Your task to perform on an android device: turn on bluetooth scan Image 0: 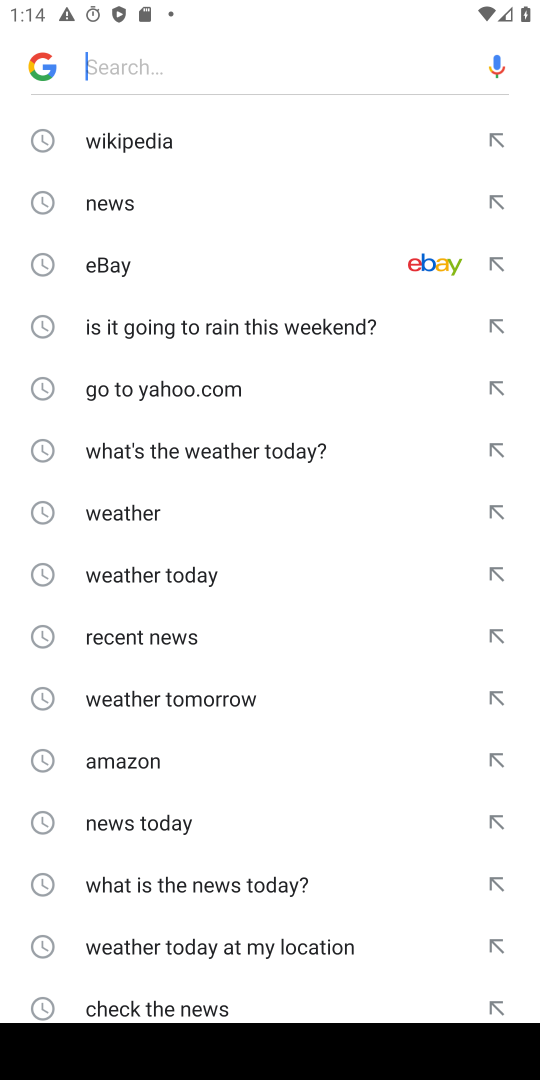
Step 0: press home button
Your task to perform on an android device: turn on bluetooth scan Image 1: 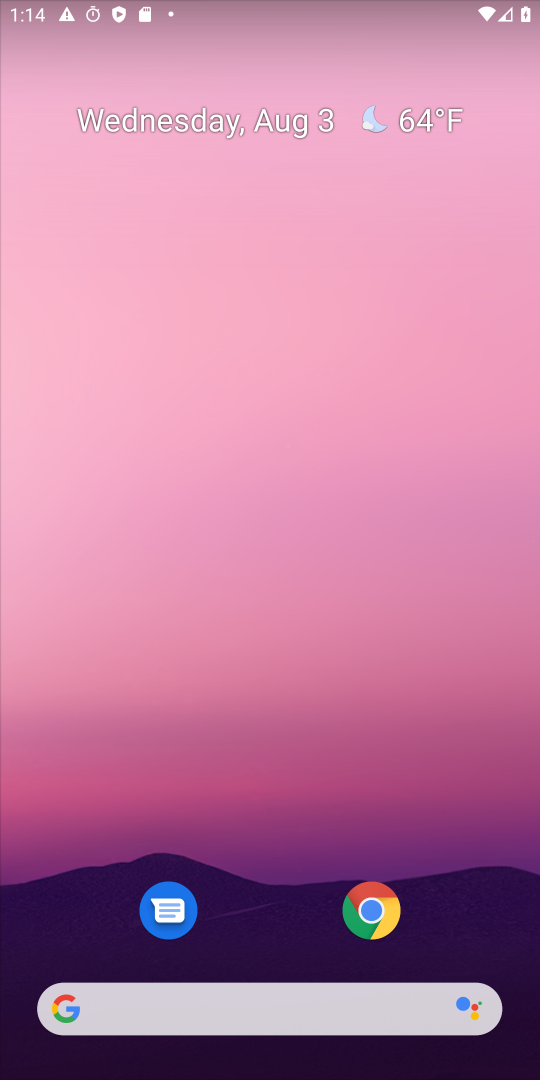
Step 1: drag from (362, 886) to (471, 0)
Your task to perform on an android device: turn on bluetooth scan Image 2: 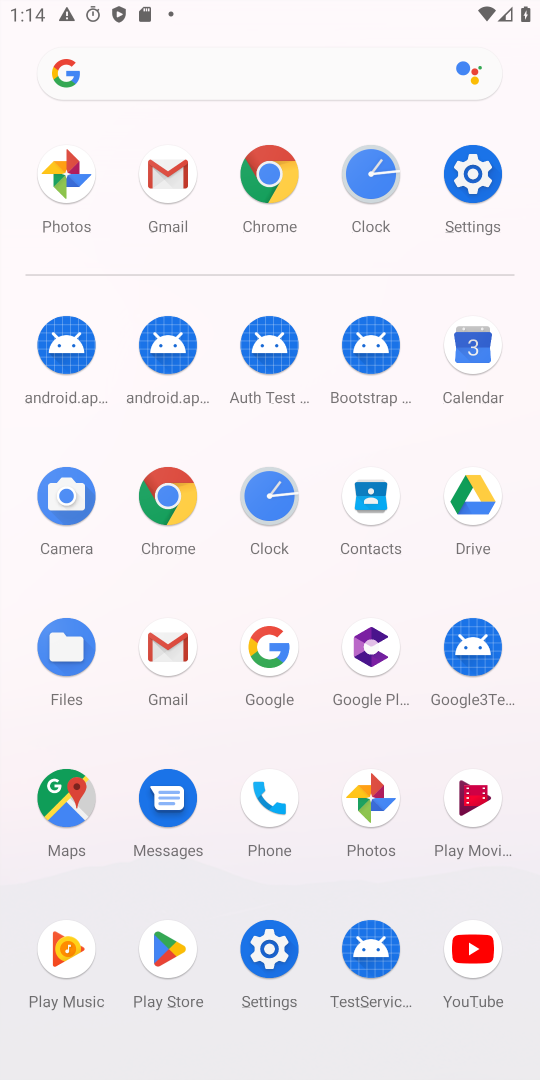
Step 2: click (464, 171)
Your task to perform on an android device: turn on bluetooth scan Image 3: 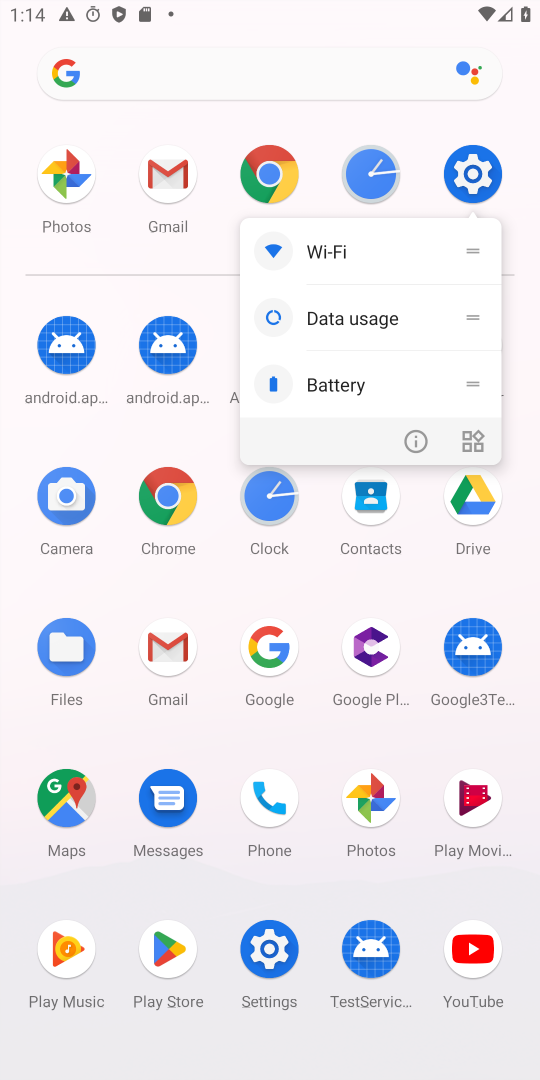
Step 3: click (464, 171)
Your task to perform on an android device: turn on bluetooth scan Image 4: 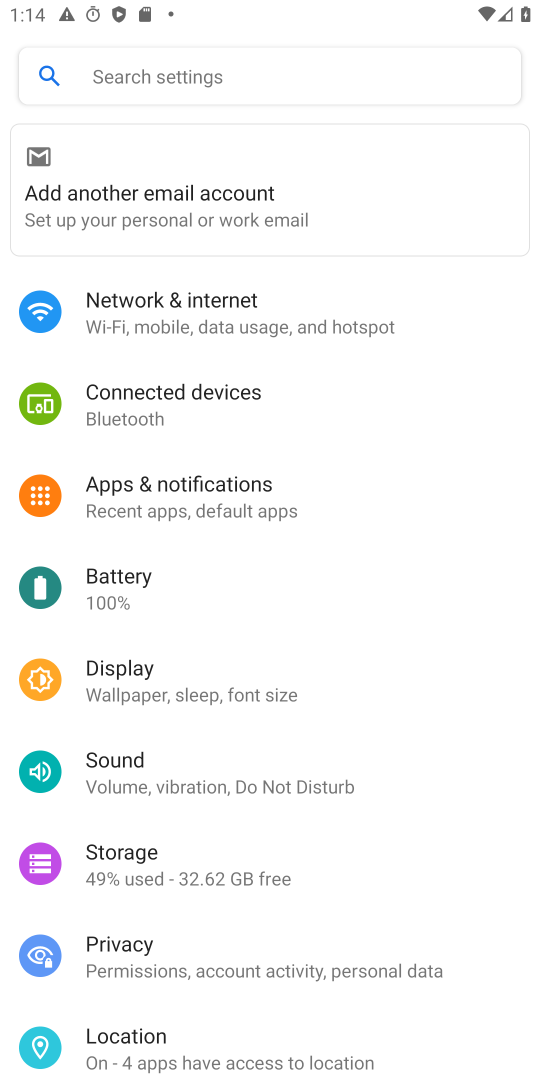
Step 4: click (167, 1048)
Your task to perform on an android device: turn on bluetooth scan Image 5: 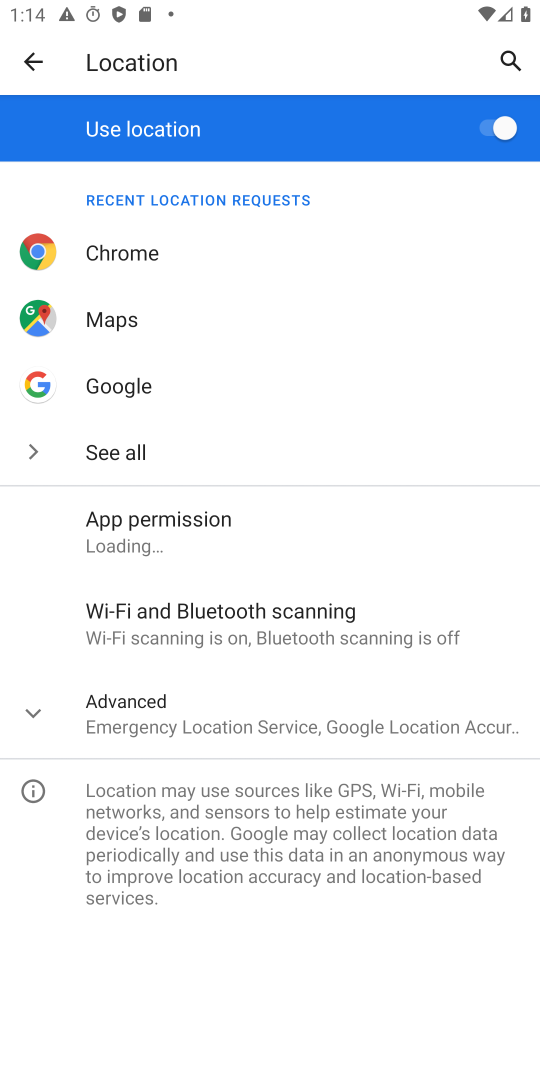
Step 5: click (260, 618)
Your task to perform on an android device: turn on bluetooth scan Image 6: 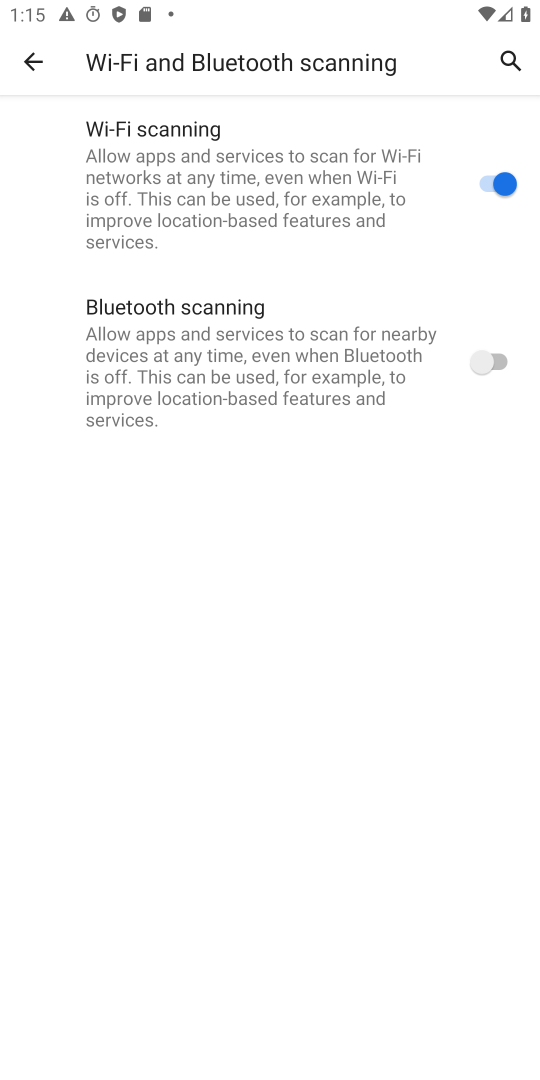
Step 6: click (498, 358)
Your task to perform on an android device: turn on bluetooth scan Image 7: 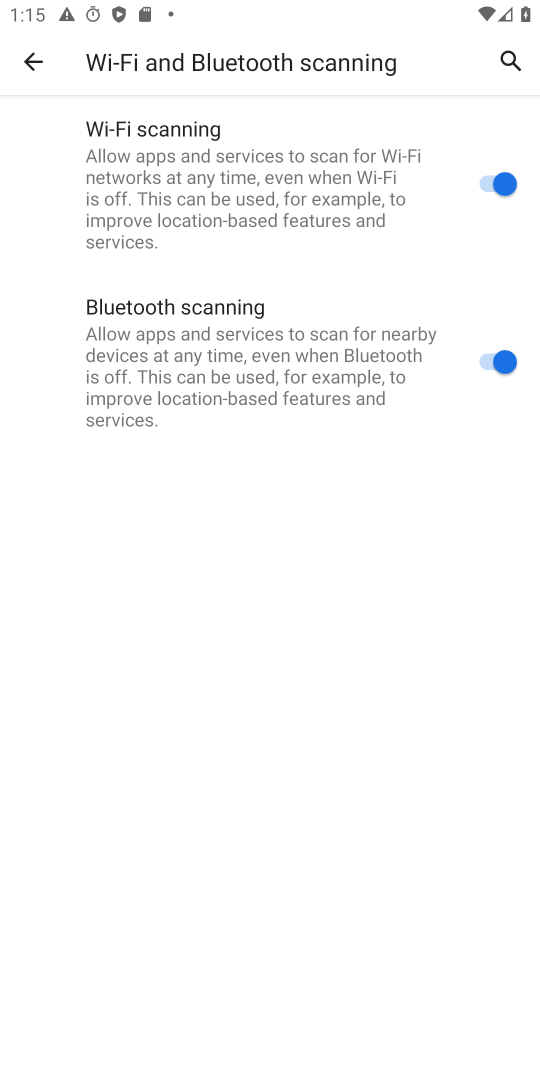
Step 7: task complete